Your task to perform on an android device: open a new tab in the chrome app Image 0: 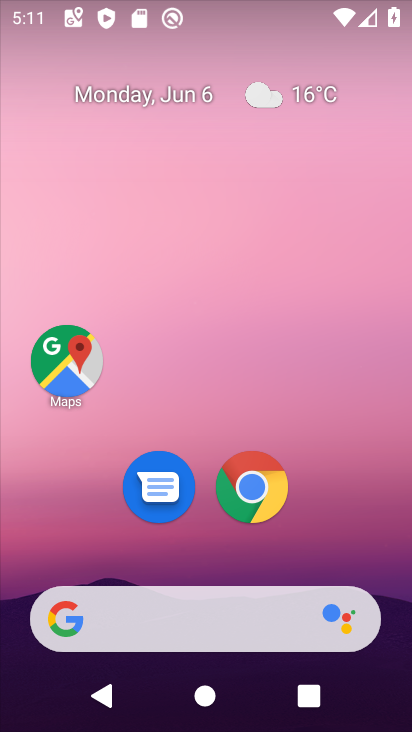
Step 0: click (258, 496)
Your task to perform on an android device: open a new tab in the chrome app Image 1: 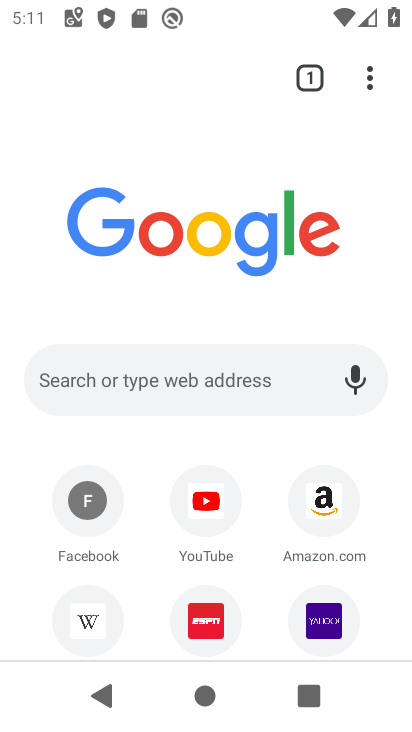
Step 1: click (368, 79)
Your task to perform on an android device: open a new tab in the chrome app Image 2: 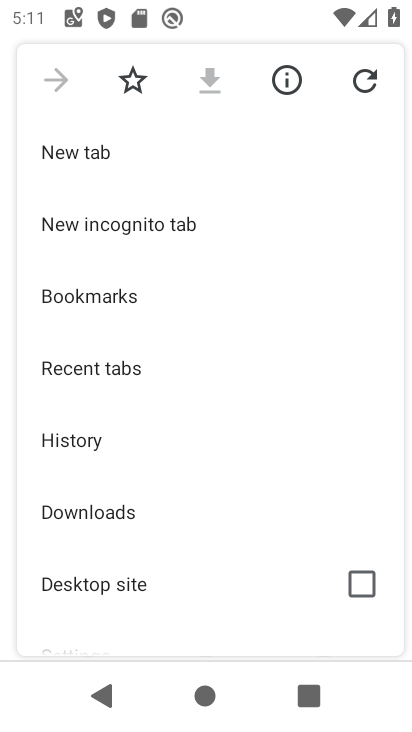
Step 2: click (204, 154)
Your task to perform on an android device: open a new tab in the chrome app Image 3: 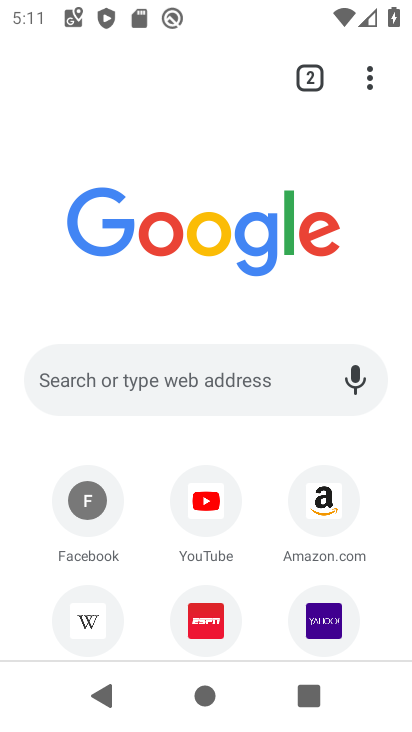
Step 3: task complete